Your task to perform on an android device: Search for Mexican restaurants on Maps Image 0: 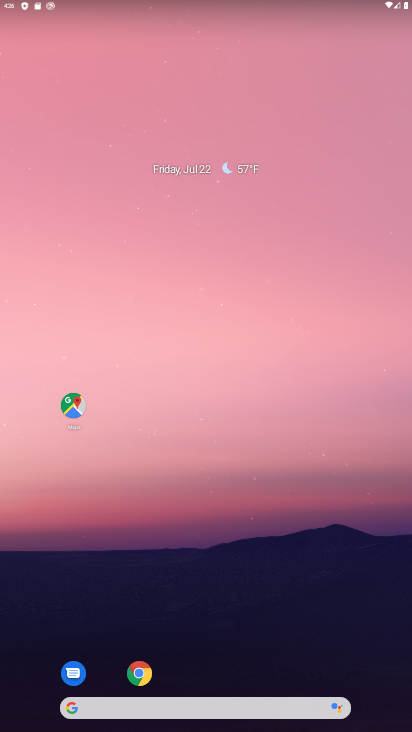
Step 0: click (78, 408)
Your task to perform on an android device: Search for Mexican restaurants on Maps Image 1: 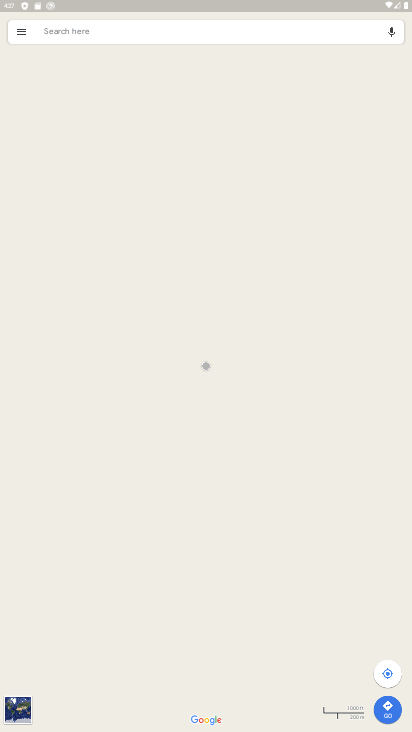
Step 1: click (197, 33)
Your task to perform on an android device: Search for Mexican restaurants on Maps Image 2: 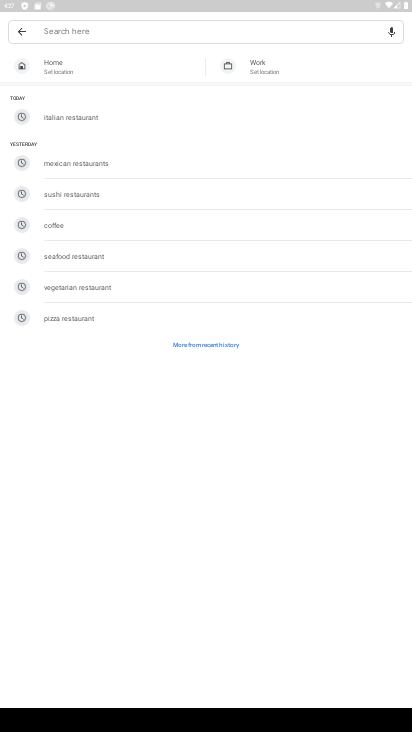
Step 2: click (120, 162)
Your task to perform on an android device: Search for Mexican restaurants on Maps Image 3: 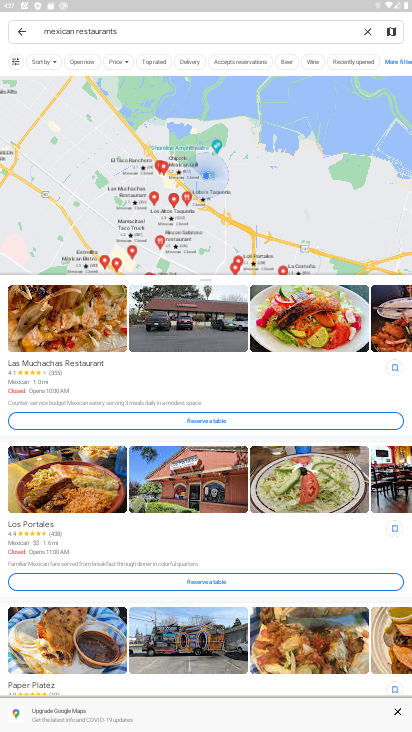
Step 3: task complete